Your task to perform on an android device: Open Wikipedia Image 0: 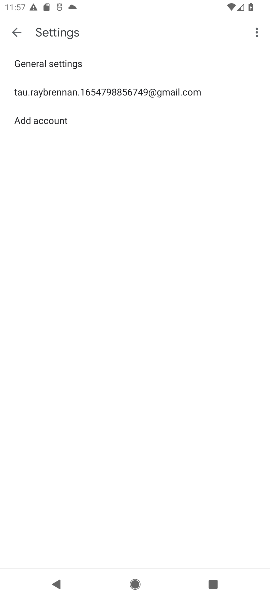
Step 0: press home button
Your task to perform on an android device: Open Wikipedia Image 1: 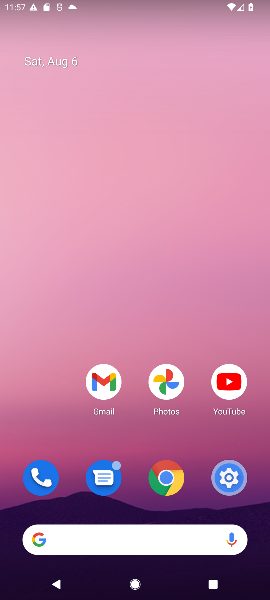
Step 1: click (171, 476)
Your task to perform on an android device: Open Wikipedia Image 2: 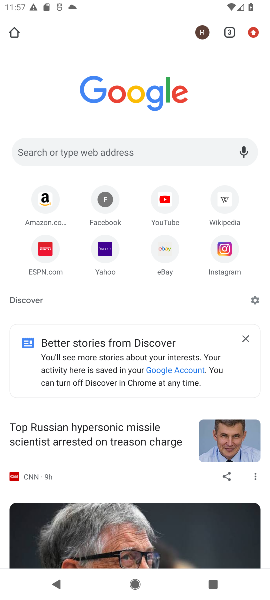
Step 2: click (226, 204)
Your task to perform on an android device: Open Wikipedia Image 3: 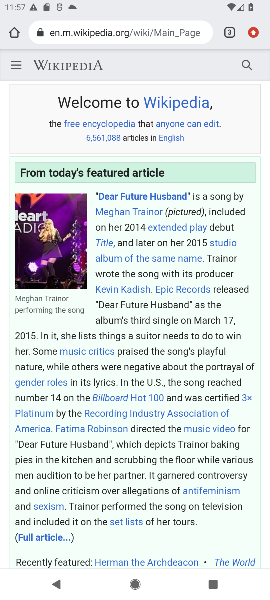
Step 3: task complete